Your task to perform on an android device: Search for pizza restaurants on Maps Image 0: 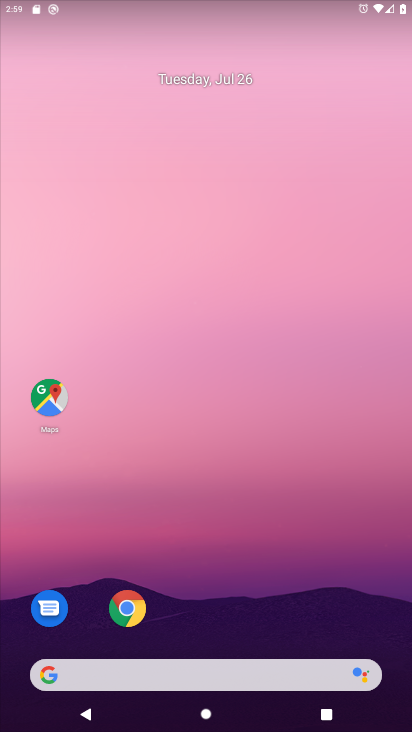
Step 0: click (48, 387)
Your task to perform on an android device: Search for pizza restaurants on Maps Image 1: 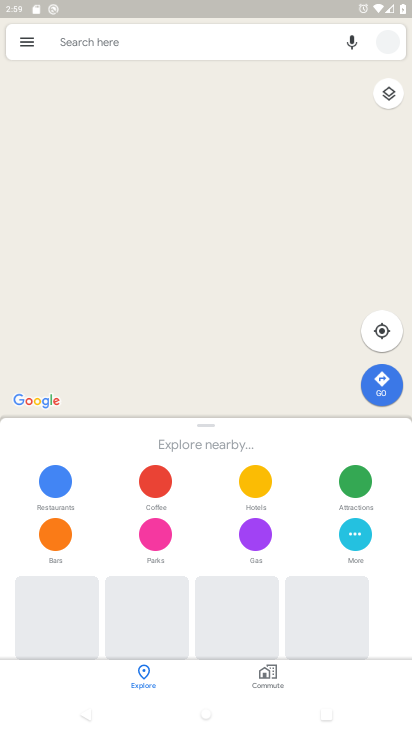
Step 1: click (204, 39)
Your task to perform on an android device: Search for pizza restaurants on Maps Image 2: 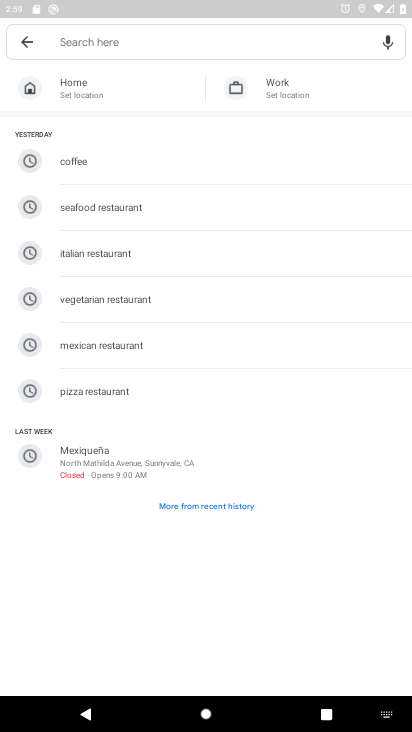
Step 2: type "pizza restaurants"
Your task to perform on an android device: Search for pizza restaurants on Maps Image 3: 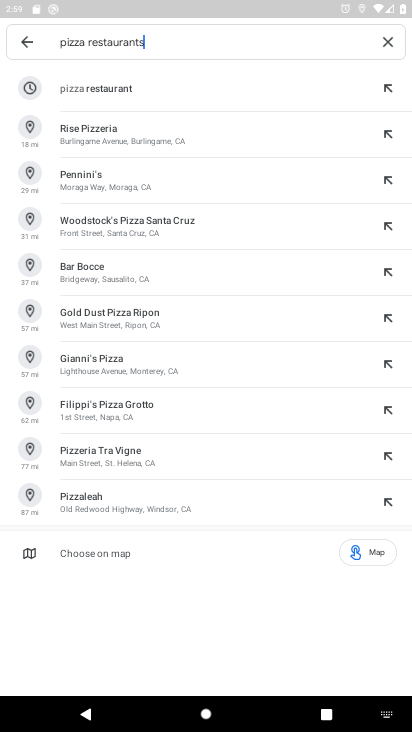
Step 3: click (161, 93)
Your task to perform on an android device: Search for pizza restaurants on Maps Image 4: 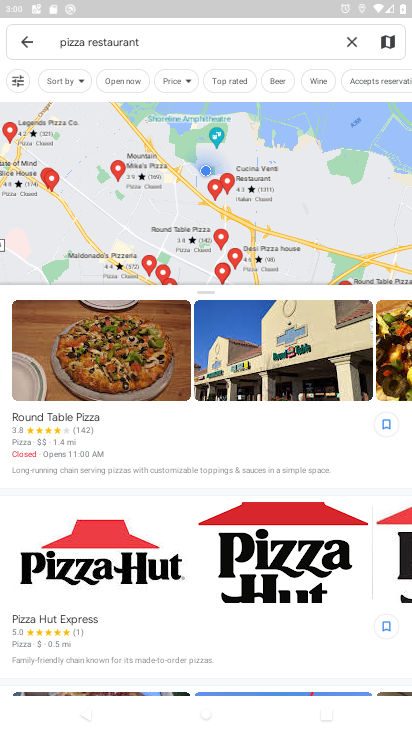
Step 4: task complete